Your task to perform on an android device: Search for seafood restaurants on Google Maps Image 0: 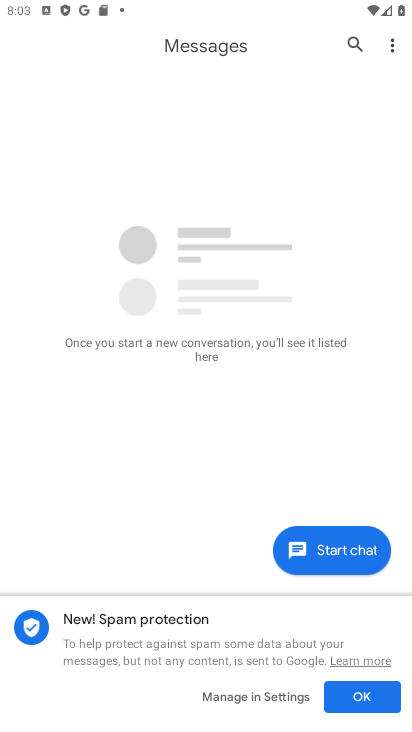
Step 0: press home button
Your task to perform on an android device: Search for seafood restaurants on Google Maps Image 1: 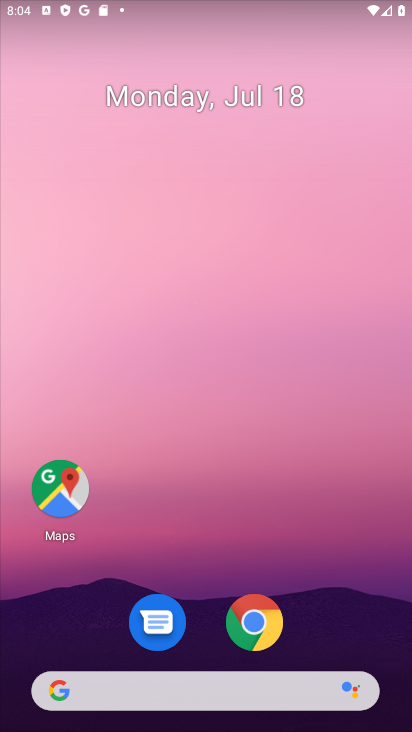
Step 1: drag from (344, 644) to (354, 66)
Your task to perform on an android device: Search for seafood restaurants on Google Maps Image 2: 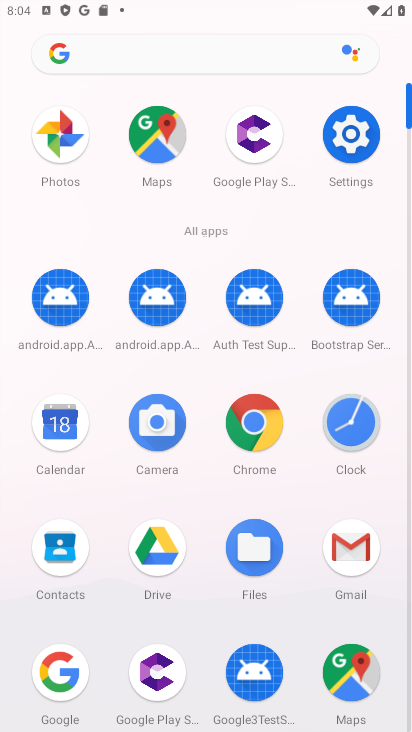
Step 2: click (349, 692)
Your task to perform on an android device: Search for seafood restaurants on Google Maps Image 3: 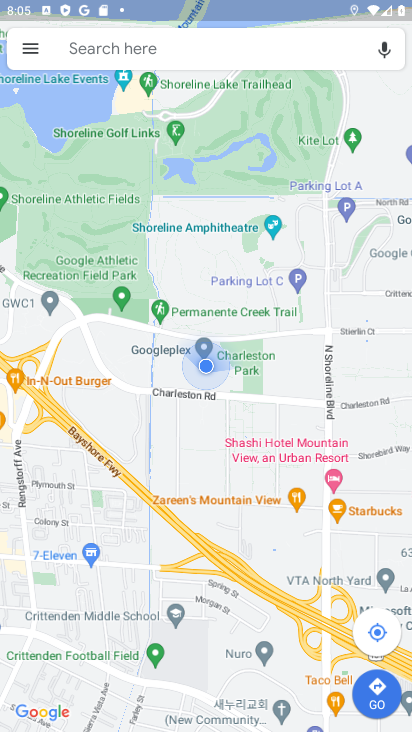
Step 3: click (206, 51)
Your task to perform on an android device: Search for seafood restaurants on Google Maps Image 4: 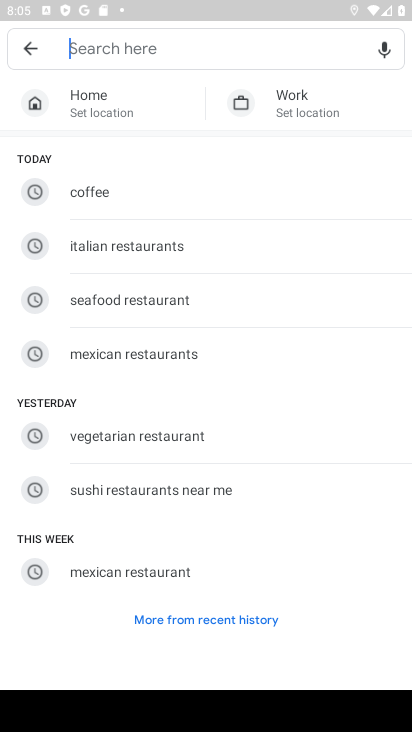
Step 4: click (113, 303)
Your task to perform on an android device: Search for seafood restaurants on Google Maps Image 5: 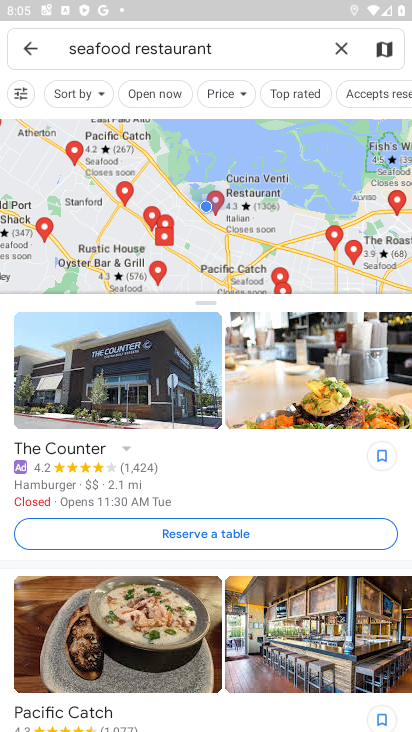
Step 5: task complete